Your task to perform on an android device: open app "Google Chrome" Image 0: 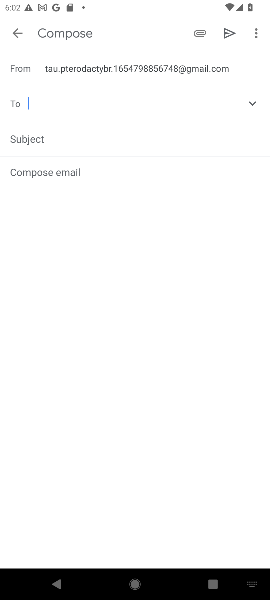
Step 0: press home button
Your task to perform on an android device: open app "Google Chrome" Image 1: 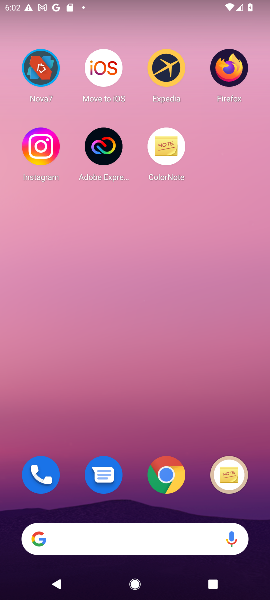
Step 1: click (159, 476)
Your task to perform on an android device: open app "Google Chrome" Image 2: 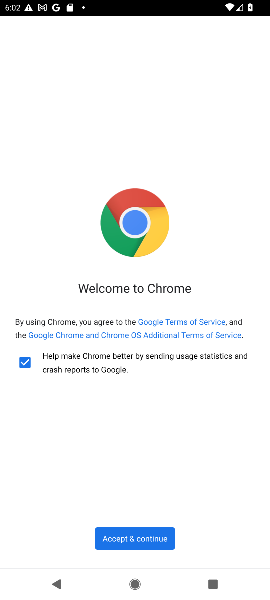
Step 2: click (148, 543)
Your task to perform on an android device: open app "Google Chrome" Image 3: 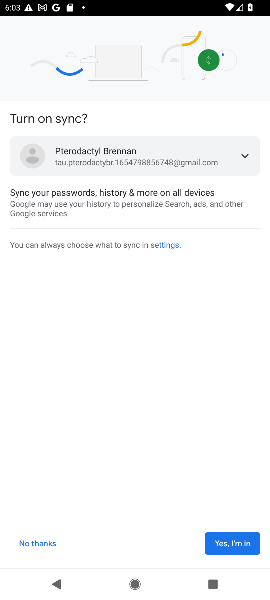
Step 3: click (221, 543)
Your task to perform on an android device: open app "Google Chrome" Image 4: 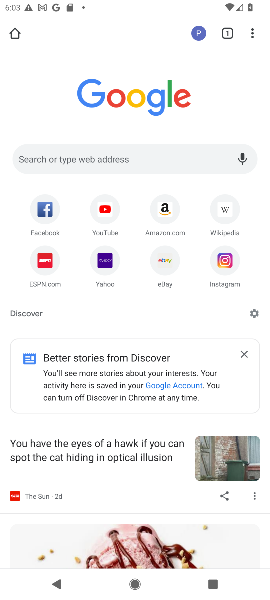
Step 4: task complete